Your task to perform on an android device: Open calendar and show me the third week of next month Image 0: 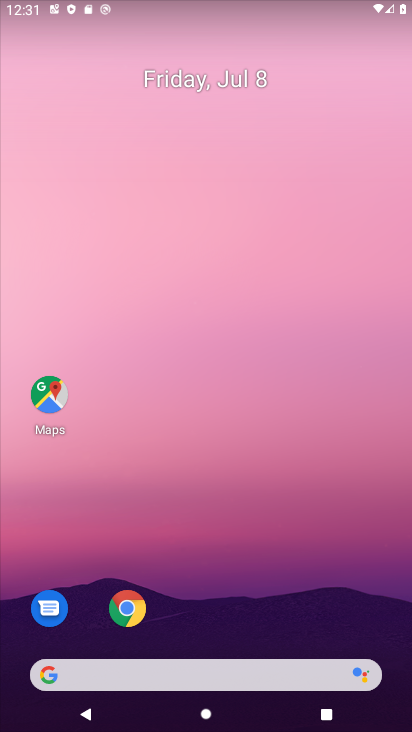
Step 0: drag from (239, 621) to (166, 205)
Your task to perform on an android device: Open calendar and show me the third week of next month Image 1: 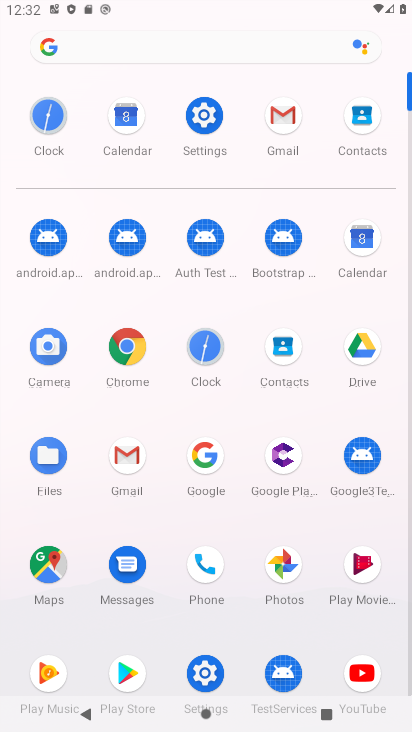
Step 1: press home button
Your task to perform on an android device: Open calendar and show me the third week of next month Image 2: 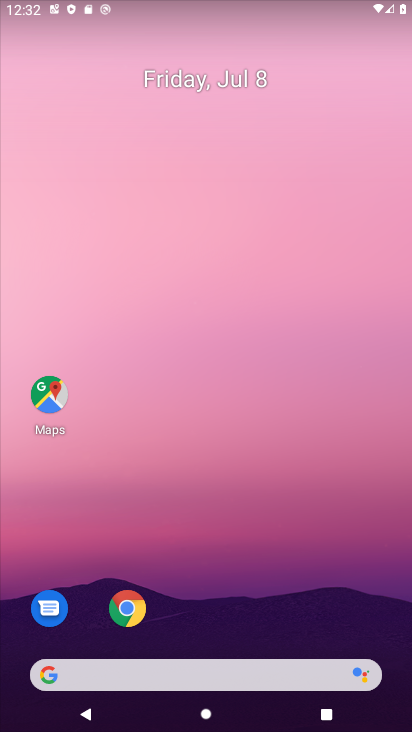
Step 2: drag from (315, 575) to (247, 30)
Your task to perform on an android device: Open calendar and show me the third week of next month Image 3: 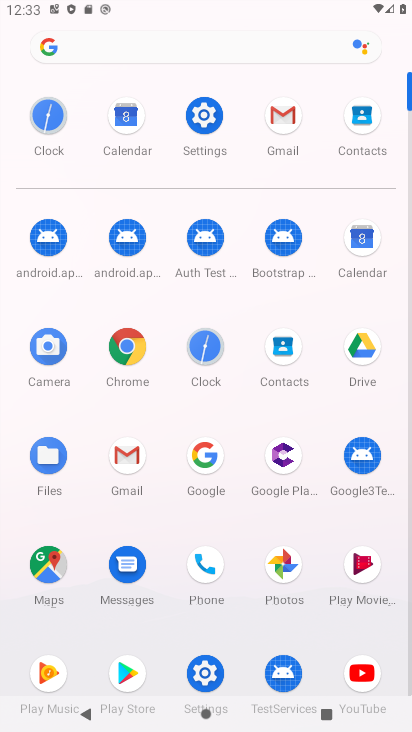
Step 3: click (111, 127)
Your task to perform on an android device: Open calendar and show me the third week of next month Image 4: 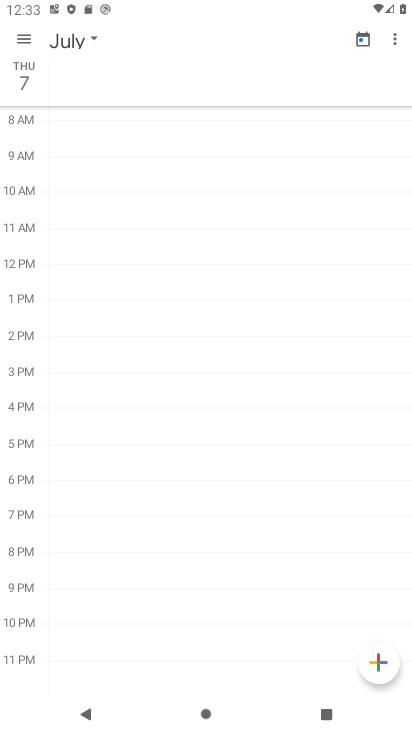
Step 4: task complete